Your task to perform on an android device: Open wifi settings Image 0: 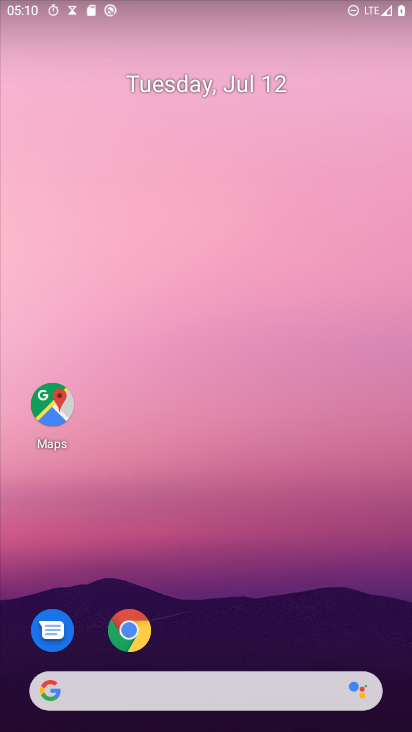
Step 0: drag from (194, 705) to (411, 85)
Your task to perform on an android device: Open wifi settings Image 1: 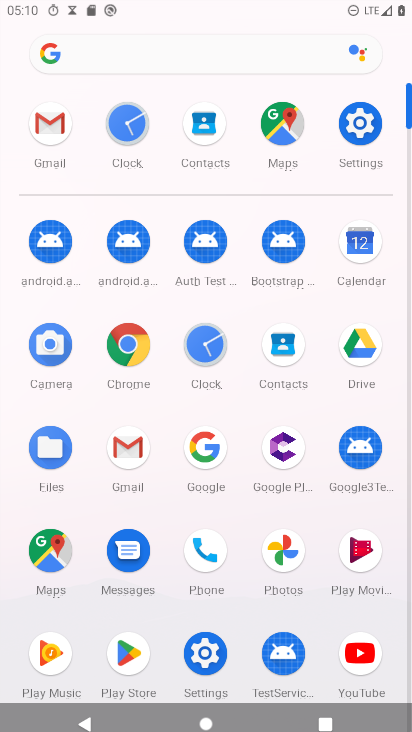
Step 1: click (362, 121)
Your task to perform on an android device: Open wifi settings Image 2: 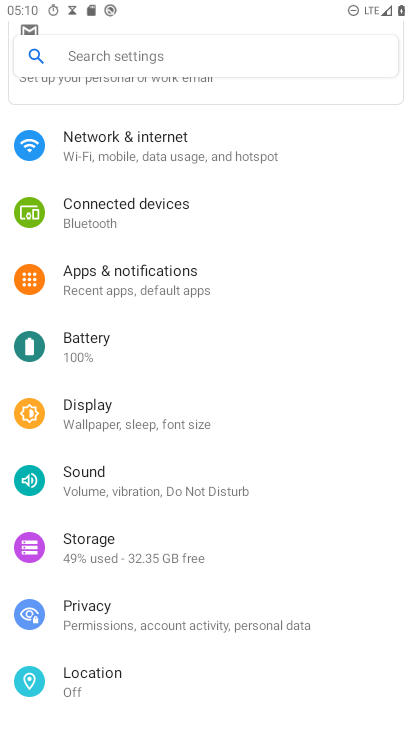
Step 2: click (143, 146)
Your task to perform on an android device: Open wifi settings Image 3: 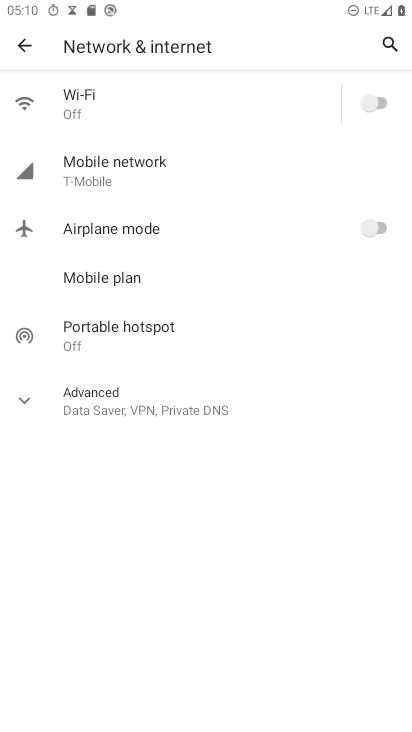
Step 3: click (118, 101)
Your task to perform on an android device: Open wifi settings Image 4: 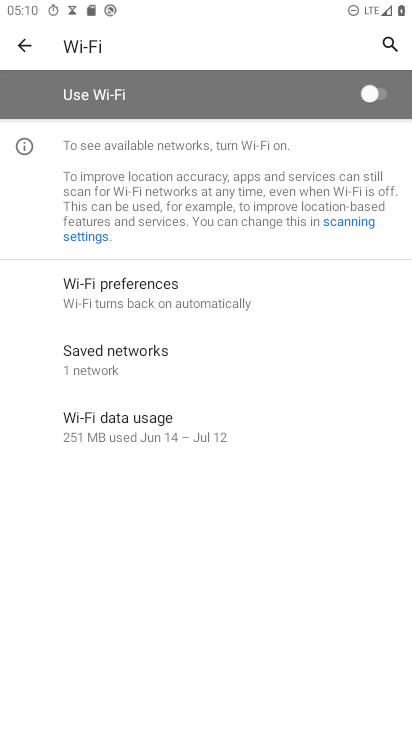
Step 4: task complete